Your task to perform on an android device: Open the web browser Image 0: 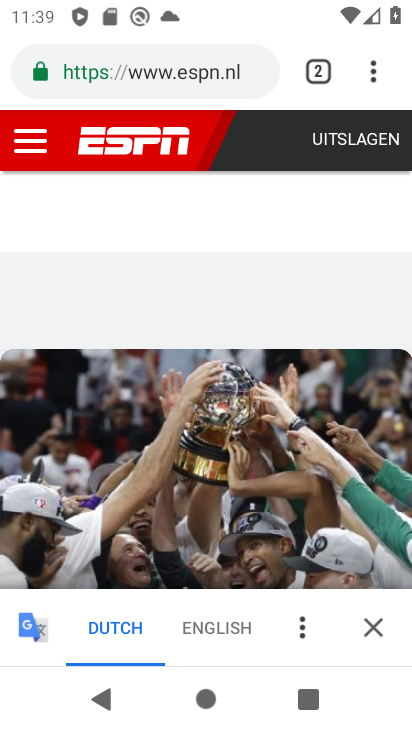
Step 0: task complete